Your task to perform on an android device: turn pop-ups off in chrome Image 0: 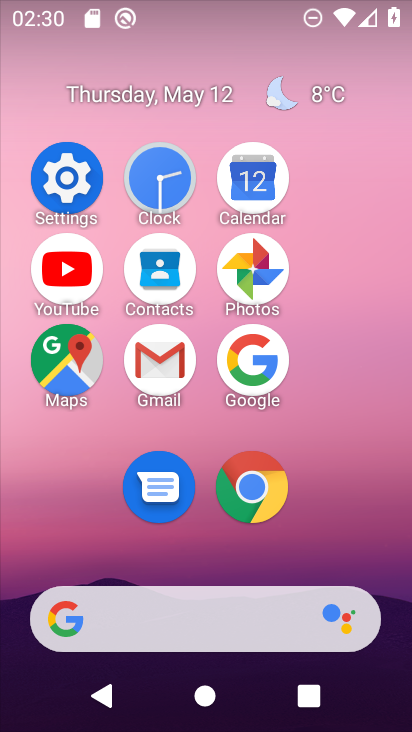
Step 0: click (256, 515)
Your task to perform on an android device: turn pop-ups off in chrome Image 1: 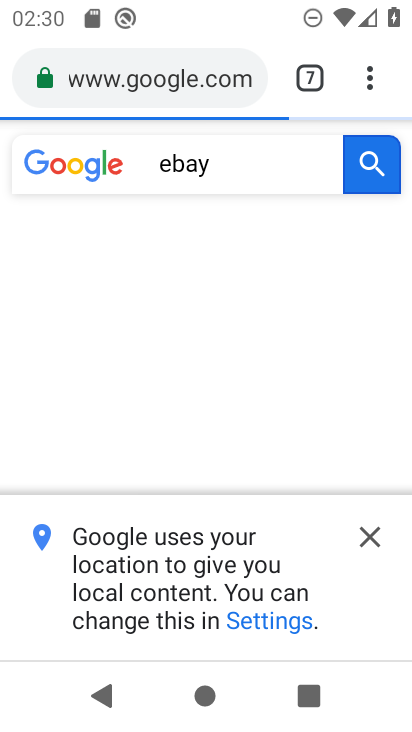
Step 1: click (370, 79)
Your task to perform on an android device: turn pop-ups off in chrome Image 2: 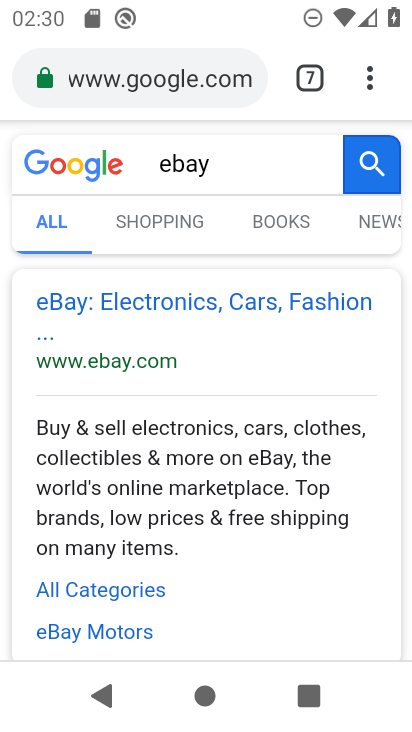
Step 2: click (360, 77)
Your task to perform on an android device: turn pop-ups off in chrome Image 3: 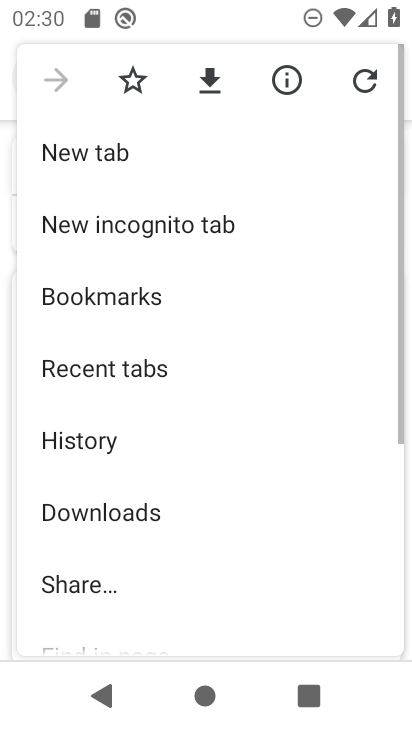
Step 3: drag from (189, 522) to (200, 158)
Your task to perform on an android device: turn pop-ups off in chrome Image 4: 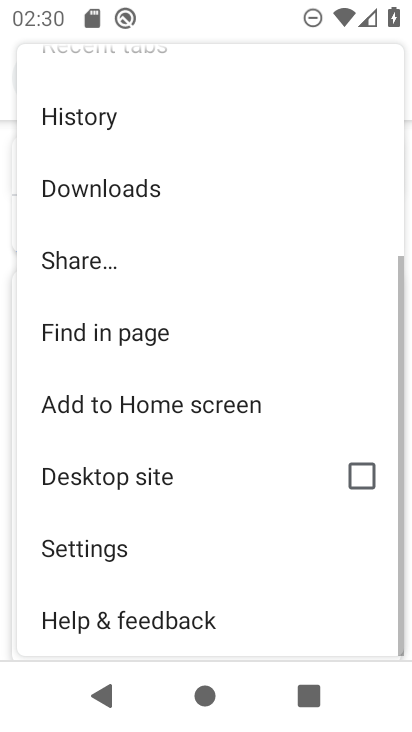
Step 4: click (154, 532)
Your task to perform on an android device: turn pop-ups off in chrome Image 5: 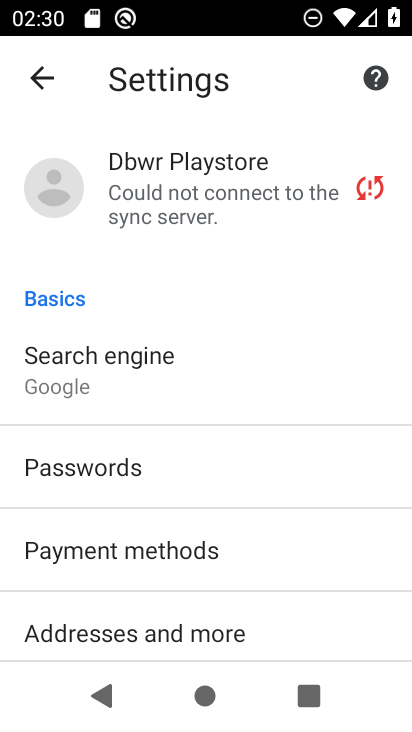
Step 5: drag from (258, 628) to (250, 196)
Your task to perform on an android device: turn pop-ups off in chrome Image 6: 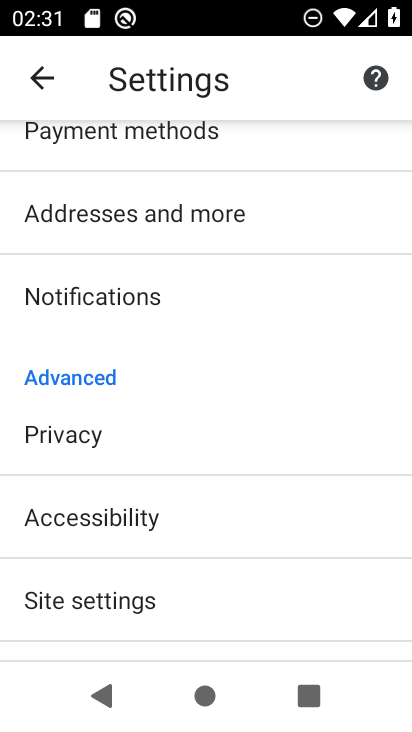
Step 6: click (154, 592)
Your task to perform on an android device: turn pop-ups off in chrome Image 7: 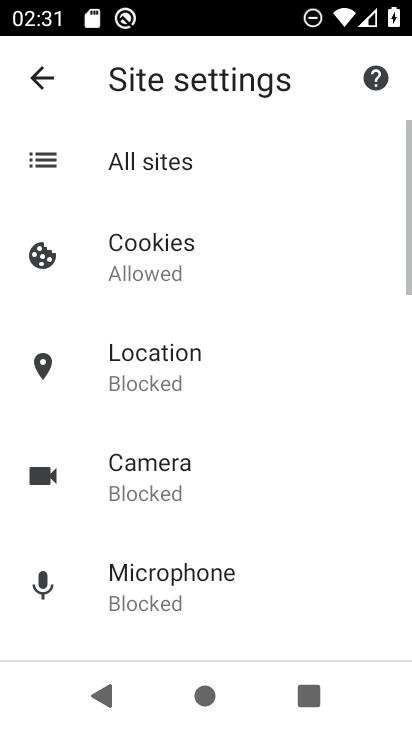
Step 7: drag from (155, 589) to (158, 173)
Your task to perform on an android device: turn pop-ups off in chrome Image 8: 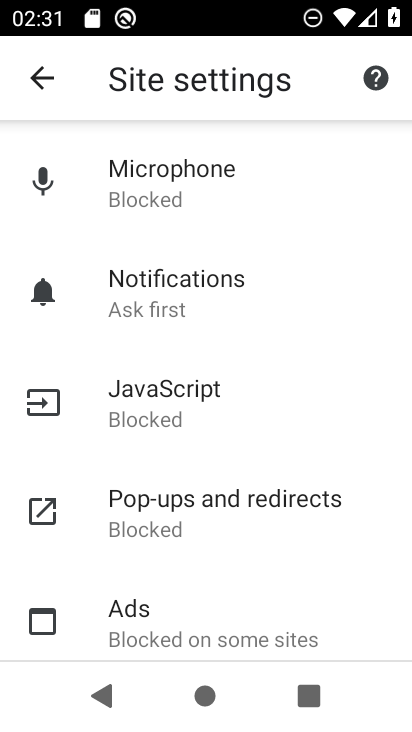
Step 8: click (175, 504)
Your task to perform on an android device: turn pop-ups off in chrome Image 9: 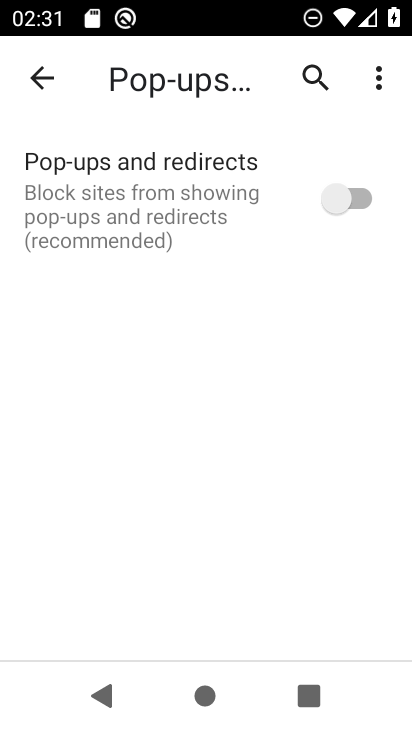
Step 9: click (347, 188)
Your task to perform on an android device: turn pop-ups off in chrome Image 10: 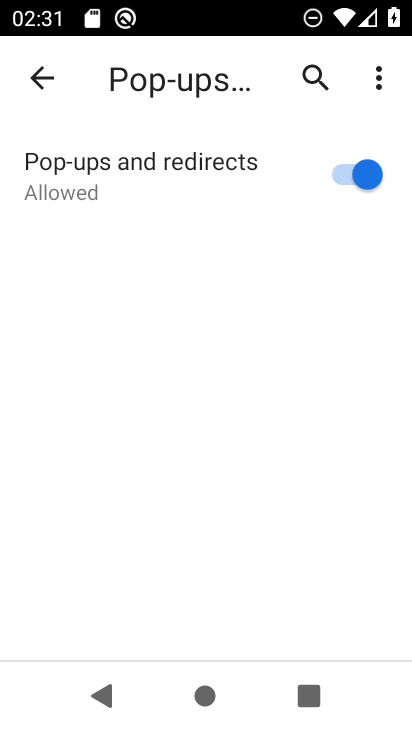
Step 10: task complete